Your task to perform on an android device: open a new tab in the chrome app Image 0: 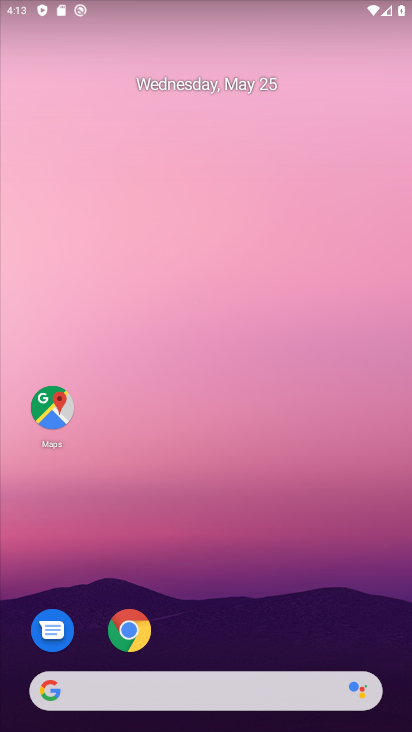
Step 0: click (138, 629)
Your task to perform on an android device: open a new tab in the chrome app Image 1: 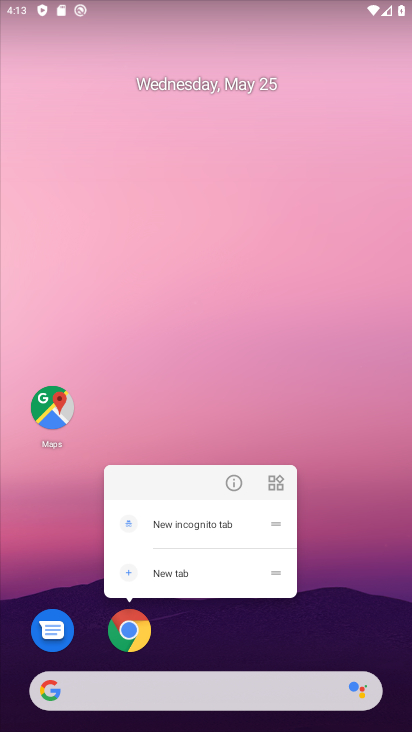
Step 1: click (130, 628)
Your task to perform on an android device: open a new tab in the chrome app Image 2: 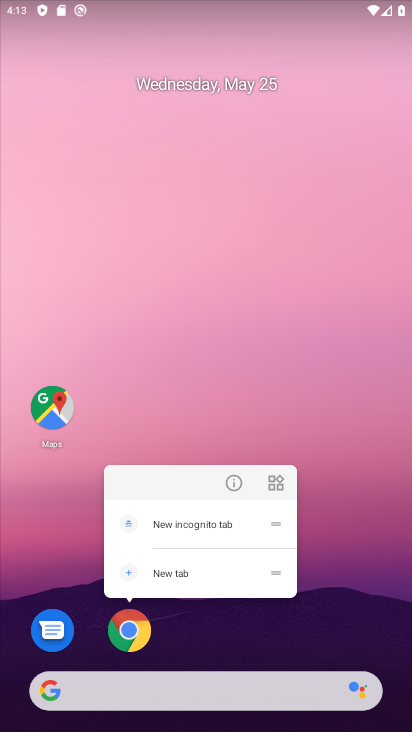
Step 2: click (137, 626)
Your task to perform on an android device: open a new tab in the chrome app Image 3: 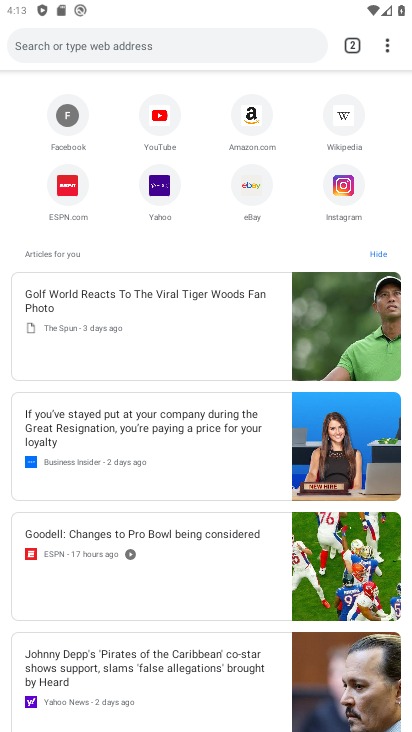
Step 3: click (358, 46)
Your task to perform on an android device: open a new tab in the chrome app Image 4: 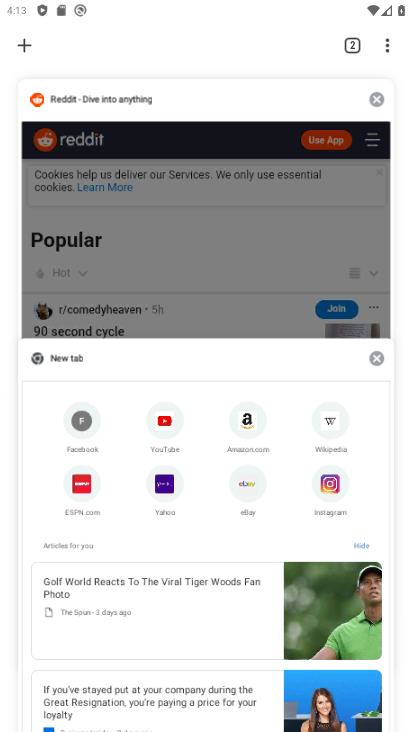
Step 4: click (20, 40)
Your task to perform on an android device: open a new tab in the chrome app Image 5: 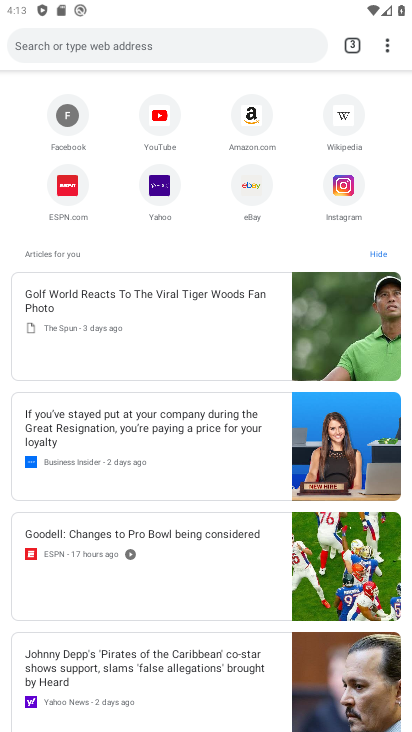
Step 5: task complete